Your task to perform on an android device: Open Google Chrome Image 0: 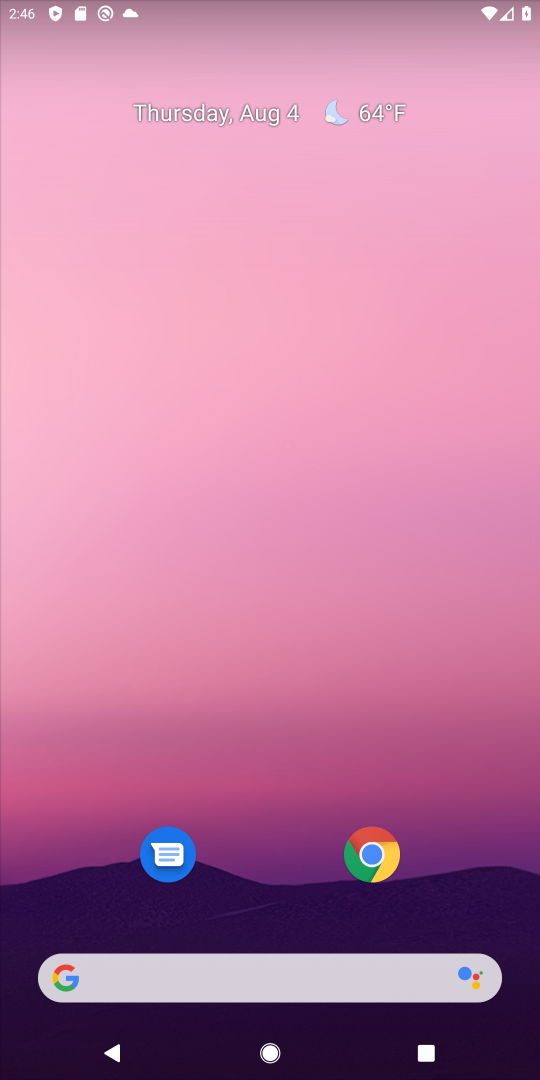
Step 0: click (371, 843)
Your task to perform on an android device: Open Google Chrome Image 1: 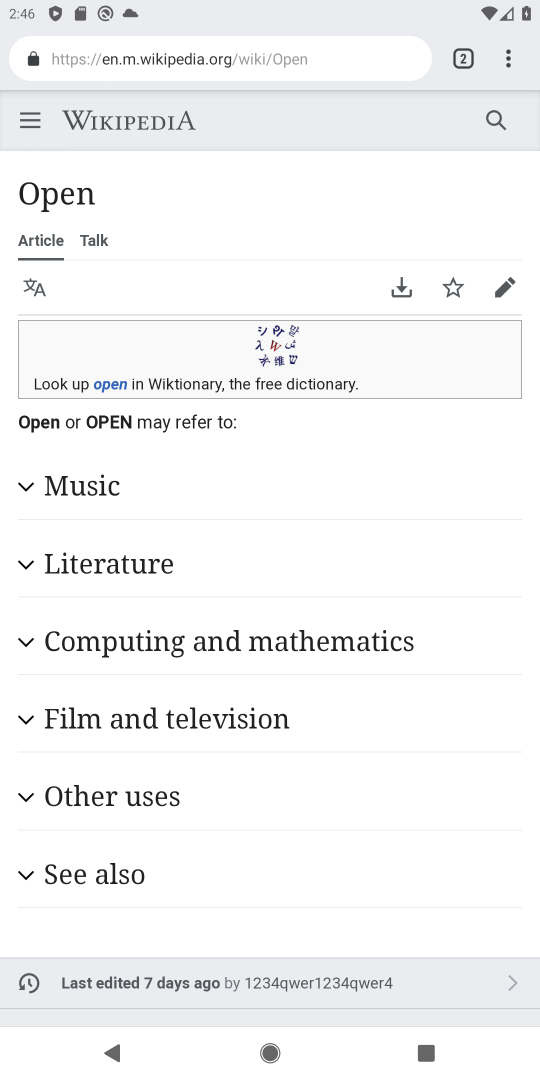
Step 1: task complete